Your task to perform on an android device: Open Amazon Image 0: 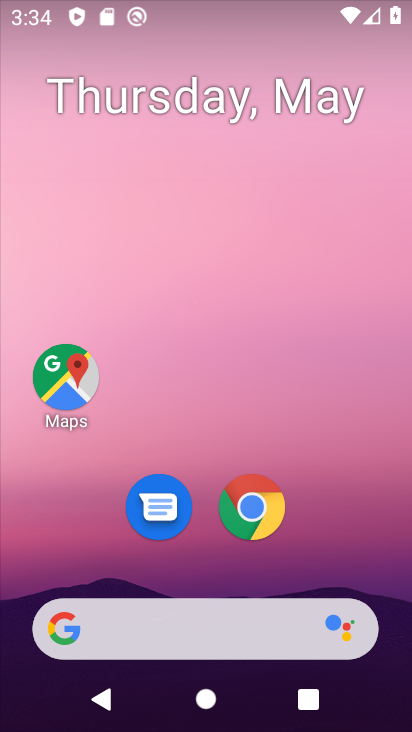
Step 0: click (244, 513)
Your task to perform on an android device: Open Amazon Image 1: 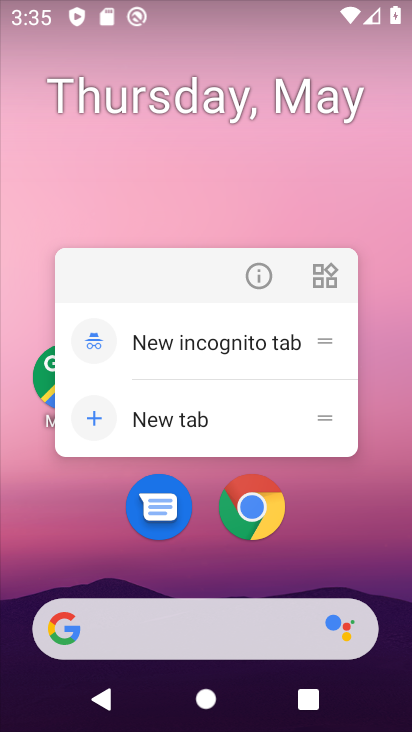
Step 1: click (248, 519)
Your task to perform on an android device: Open Amazon Image 2: 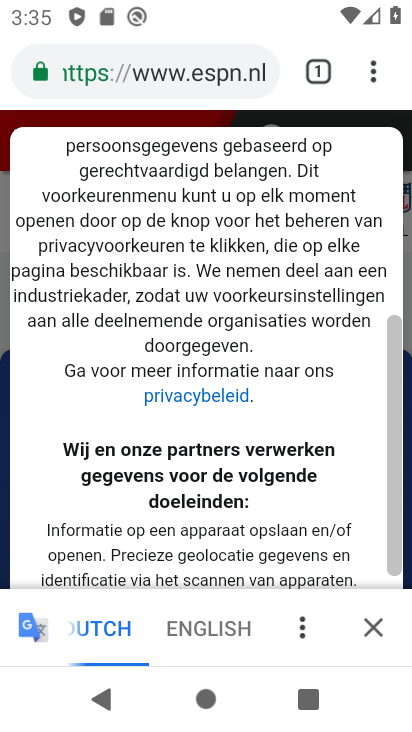
Step 2: click (215, 63)
Your task to perform on an android device: Open Amazon Image 3: 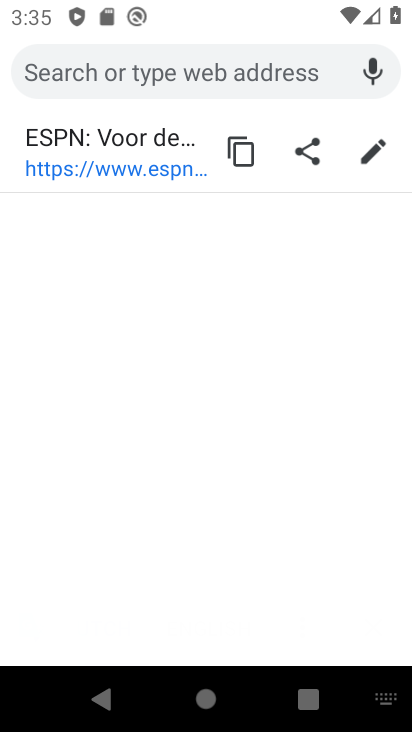
Step 3: type "amazon"
Your task to perform on an android device: Open Amazon Image 4: 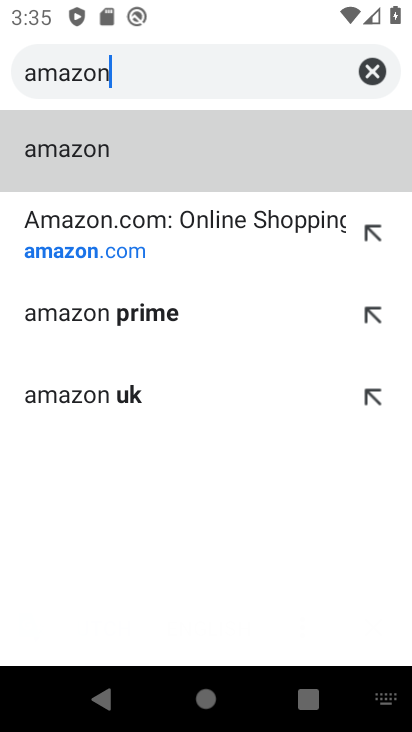
Step 4: click (100, 148)
Your task to perform on an android device: Open Amazon Image 5: 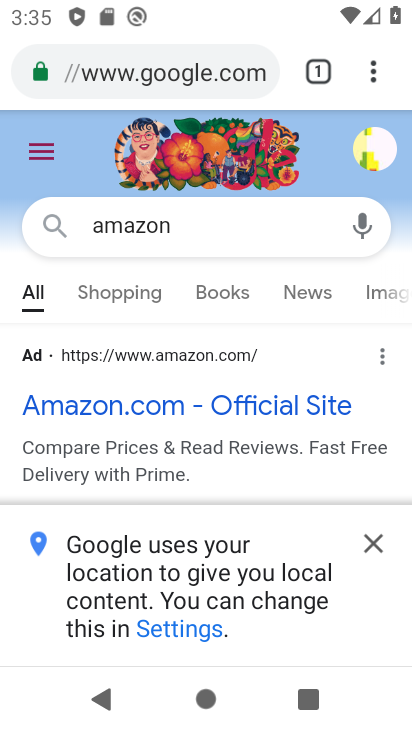
Step 5: click (136, 401)
Your task to perform on an android device: Open Amazon Image 6: 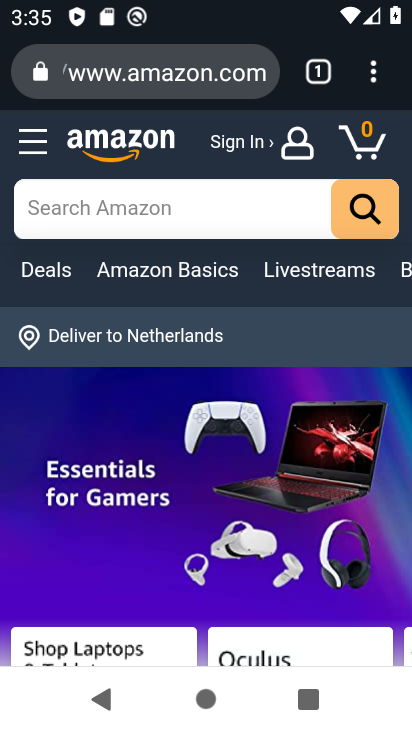
Step 6: task complete